Your task to perform on an android device: Open the map Image 0: 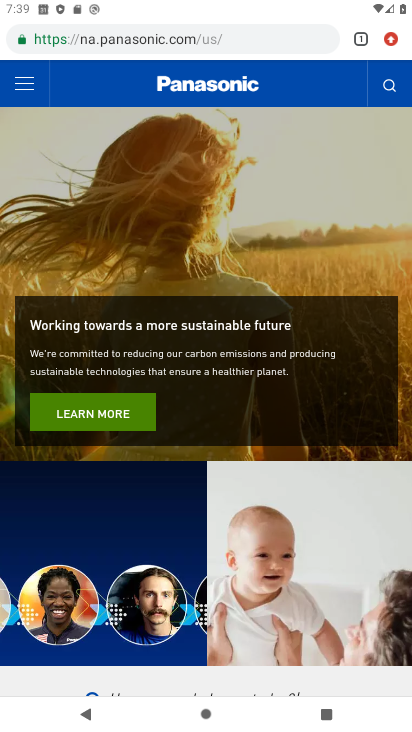
Step 0: press home button
Your task to perform on an android device: Open the map Image 1: 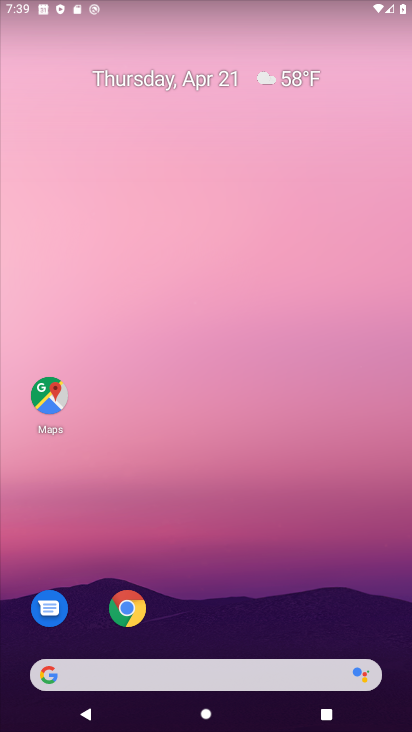
Step 1: click (49, 396)
Your task to perform on an android device: Open the map Image 2: 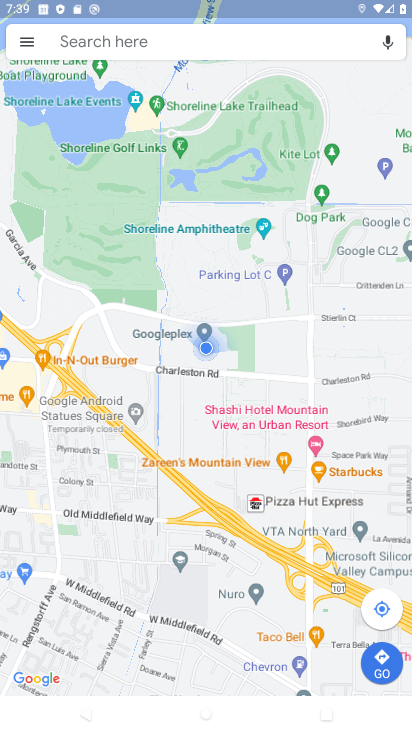
Step 2: task complete